Your task to perform on an android device: turn notification dots on Image 0: 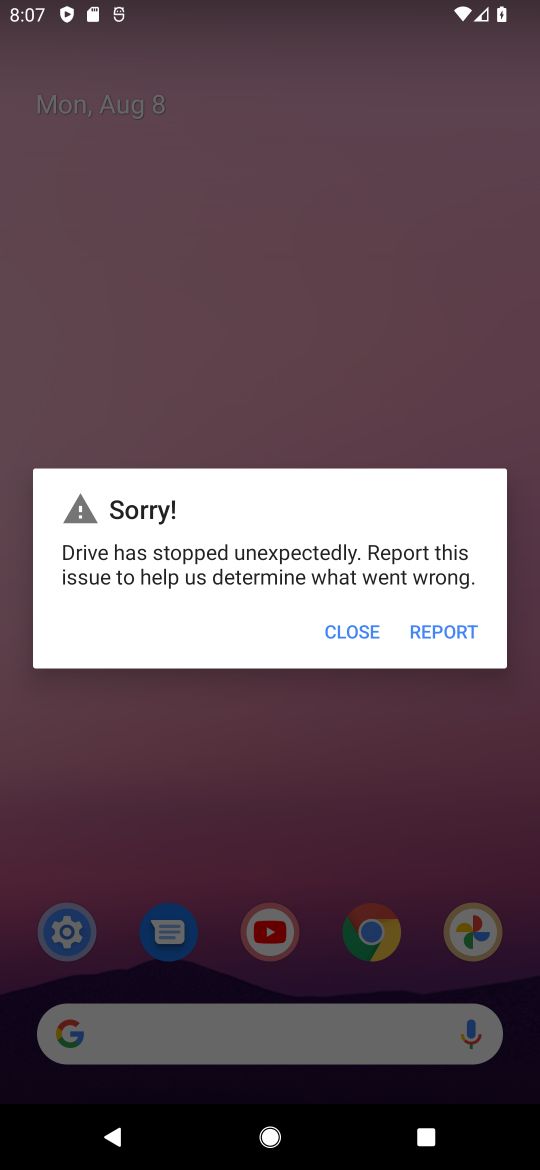
Step 0: drag from (321, 580) to (368, 624)
Your task to perform on an android device: turn notification dots on Image 1: 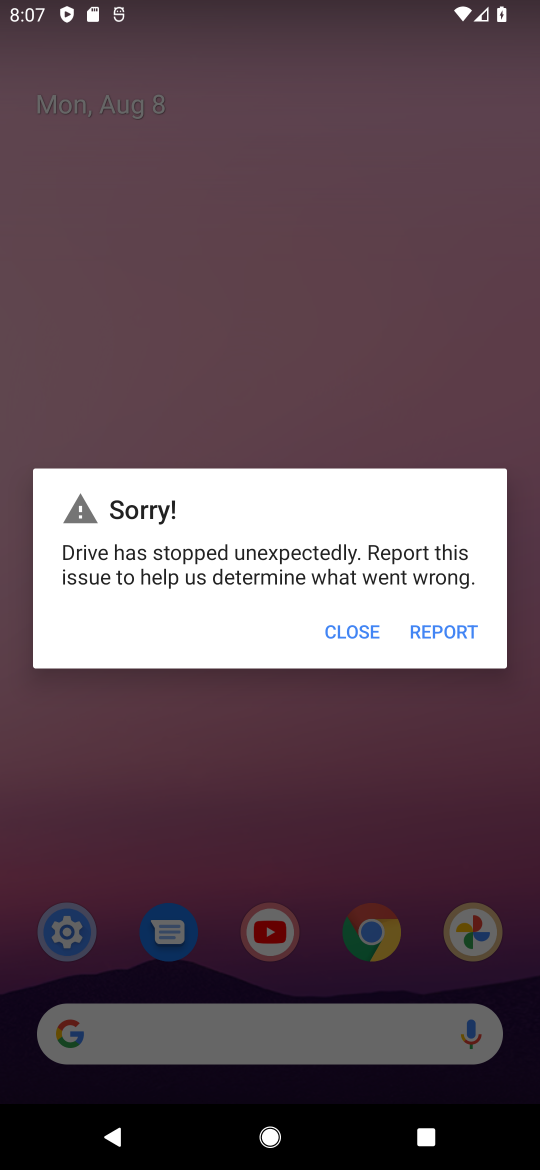
Step 1: click (353, 629)
Your task to perform on an android device: turn notification dots on Image 2: 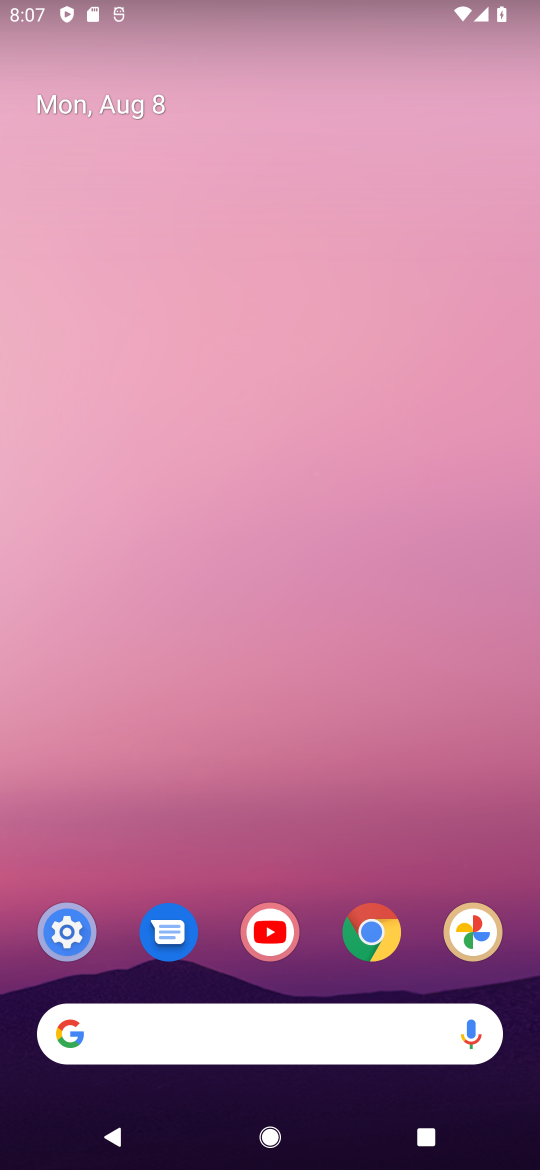
Step 2: drag from (315, 823) to (348, 144)
Your task to perform on an android device: turn notification dots on Image 3: 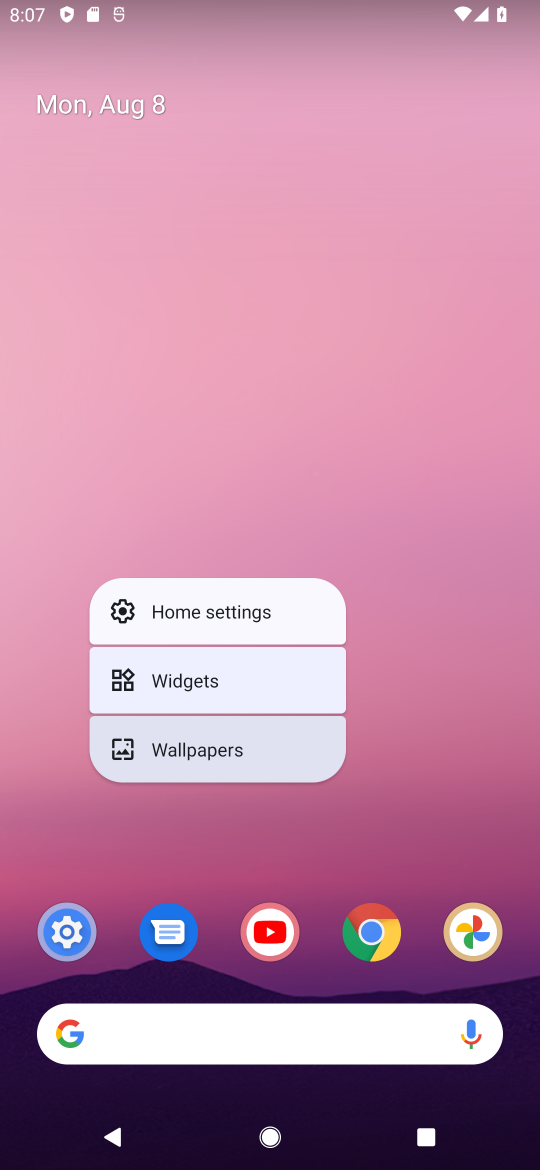
Step 3: click (421, 773)
Your task to perform on an android device: turn notification dots on Image 4: 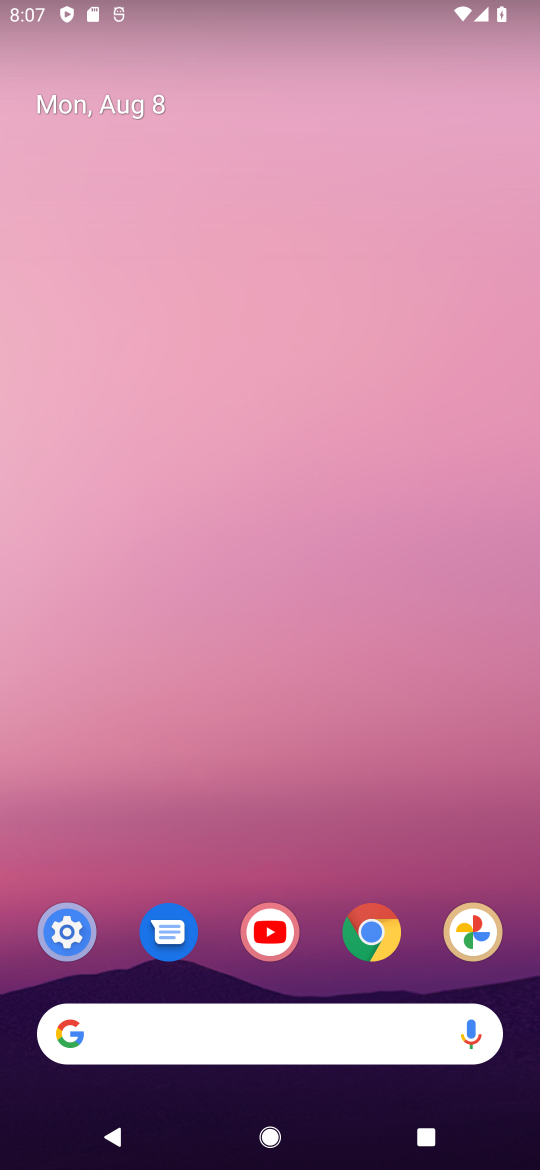
Step 4: drag from (235, 572) to (323, 12)
Your task to perform on an android device: turn notification dots on Image 5: 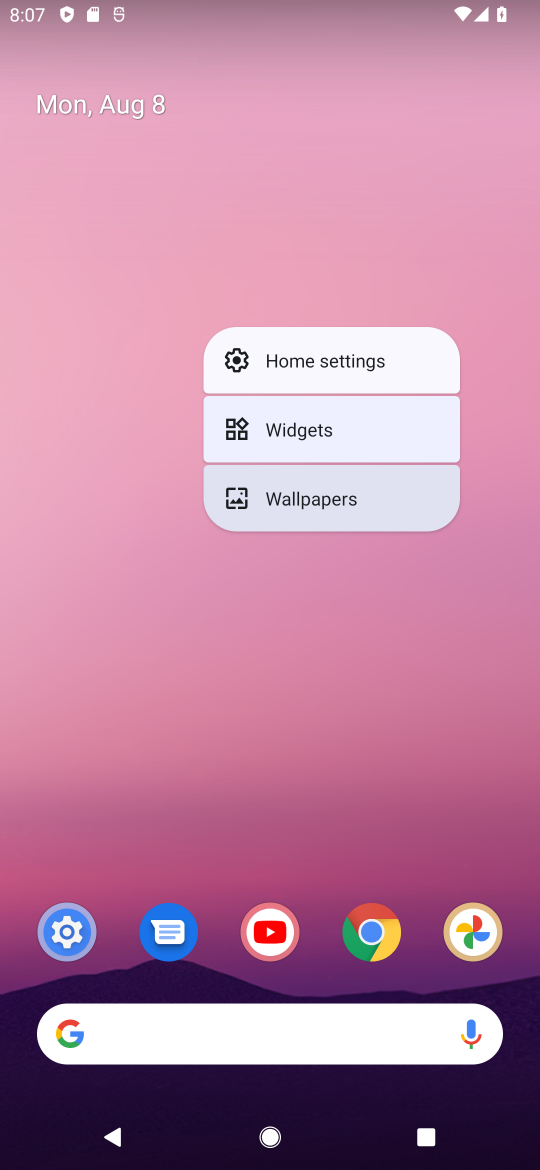
Step 5: click (109, 716)
Your task to perform on an android device: turn notification dots on Image 6: 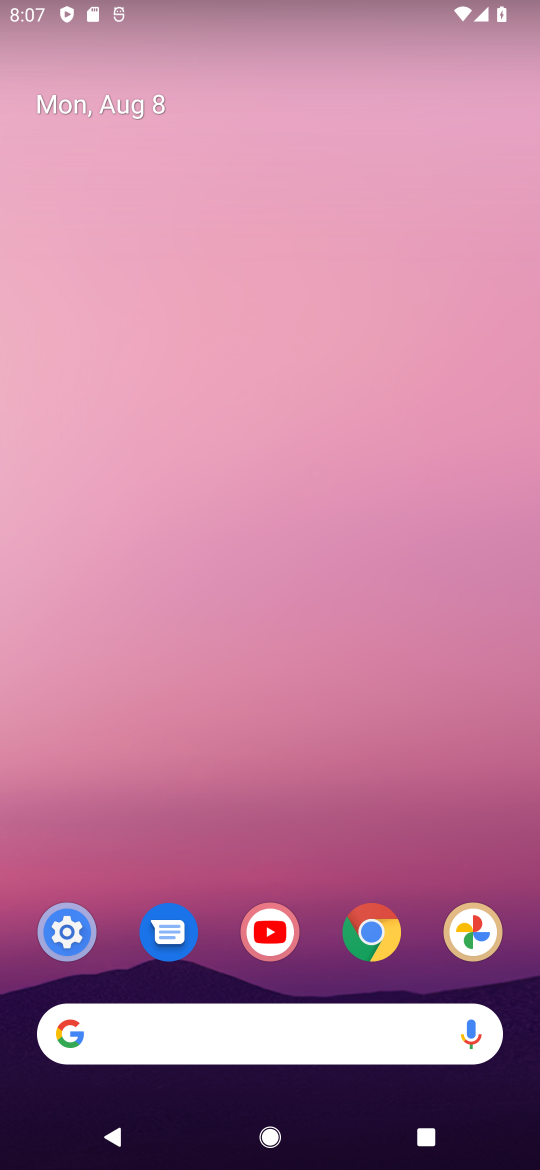
Step 6: drag from (284, 700) to (418, 33)
Your task to perform on an android device: turn notification dots on Image 7: 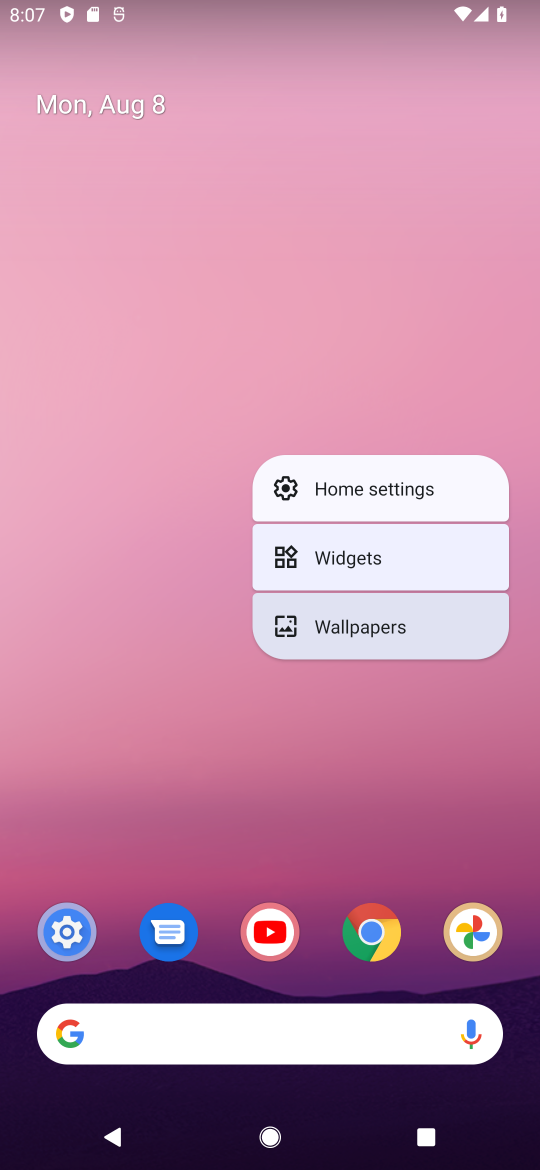
Step 7: click (119, 865)
Your task to perform on an android device: turn notification dots on Image 8: 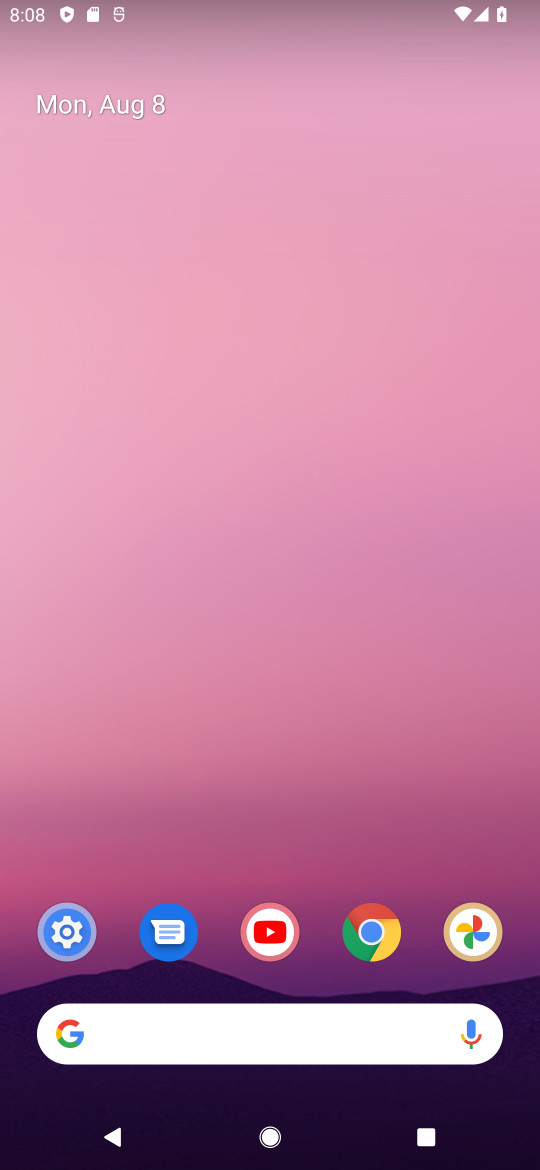
Step 8: drag from (273, 435) to (366, 3)
Your task to perform on an android device: turn notification dots on Image 9: 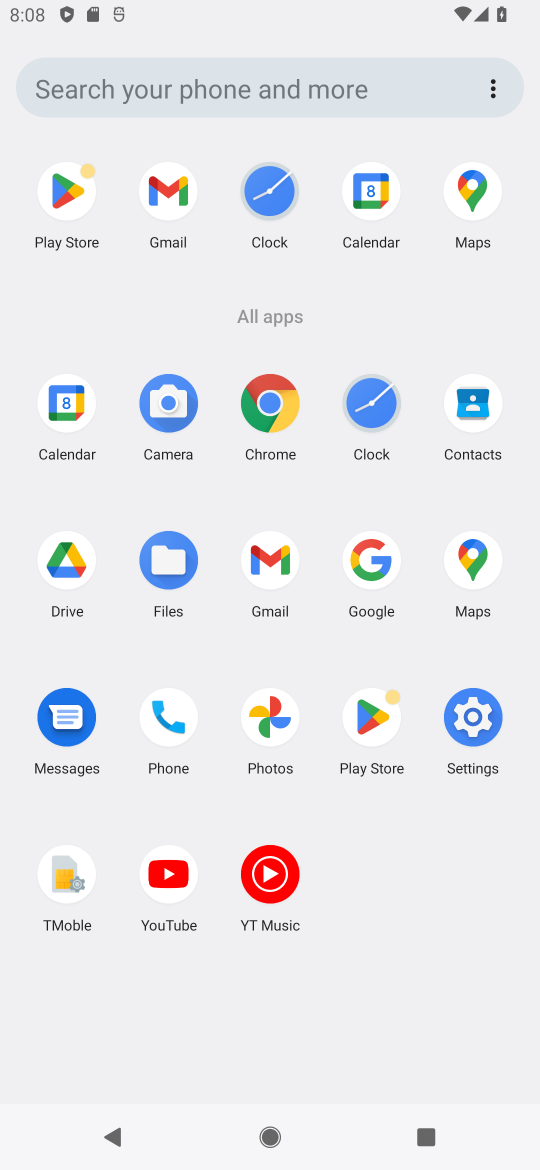
Step 9: click (462, 710)
Your task to perform on an android device: turn notification dots on Image 10: 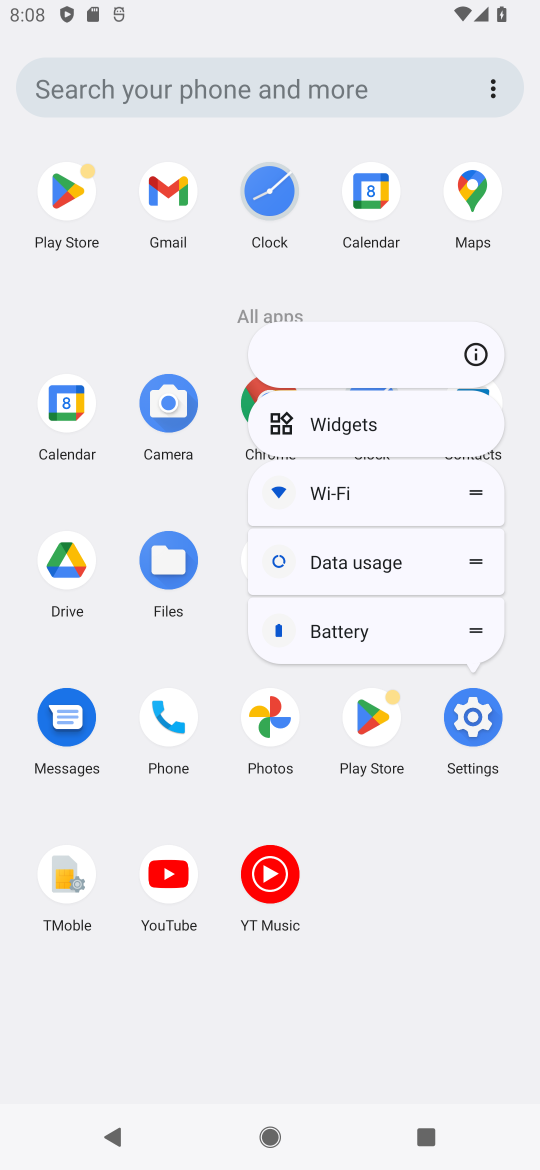
Step 10: click (493, 708)
Your task to perform on an android device: turn notification dots on Image 11: 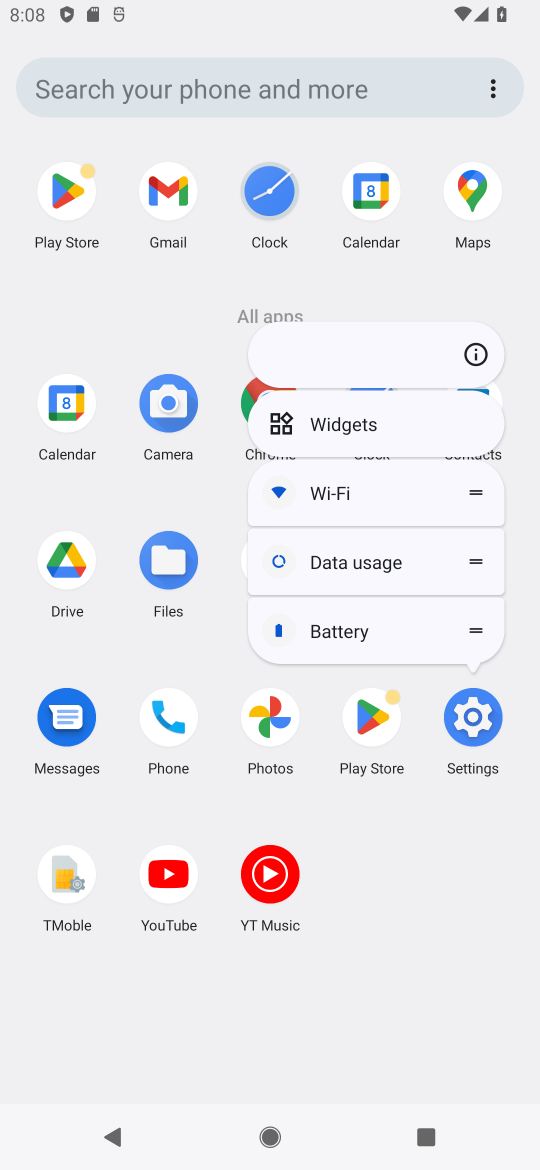
Step 11: click (483, 711)
Your task to perform on an android device: turn notification dots on Image 12: 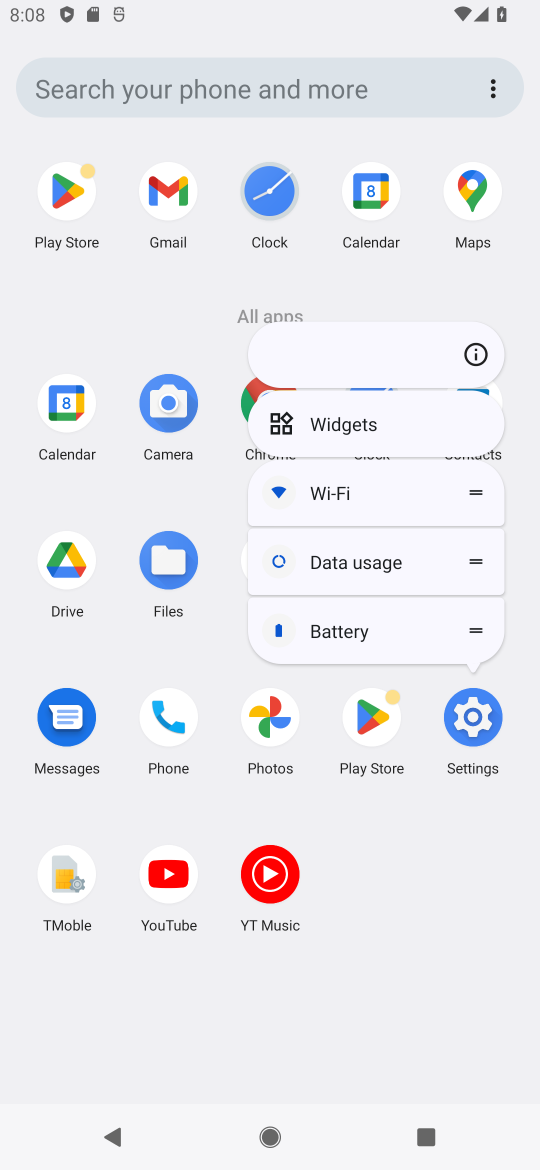
Step 12: click (481, 707)
Your task to perform on an android device: turn notification dots on Image 13: 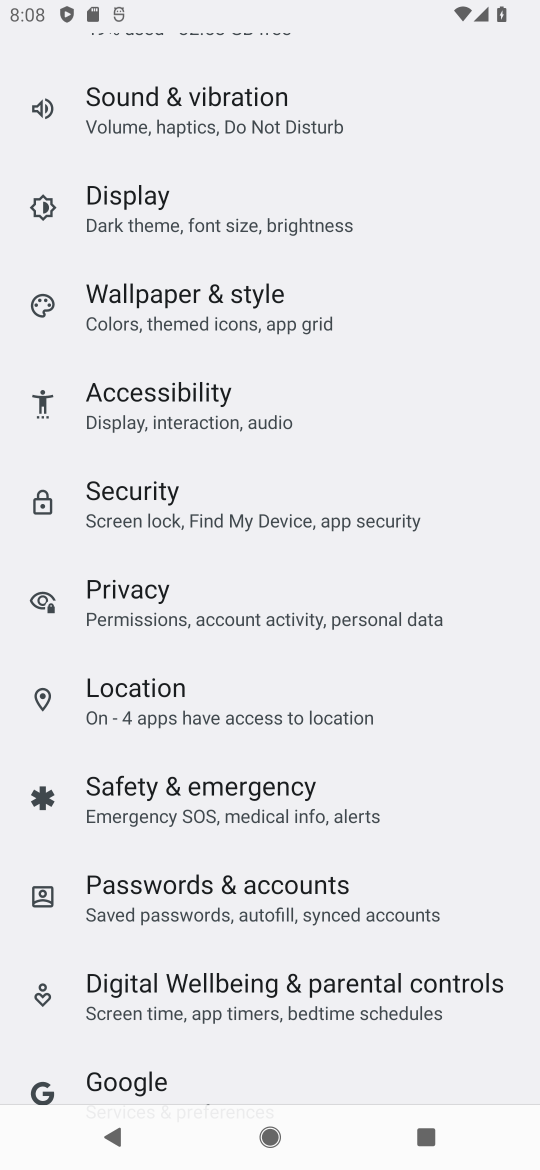
Step 13: drag from (220, 313) to (224, 1125)
Your task to perform on an android device: turn notification dots on Image 14: 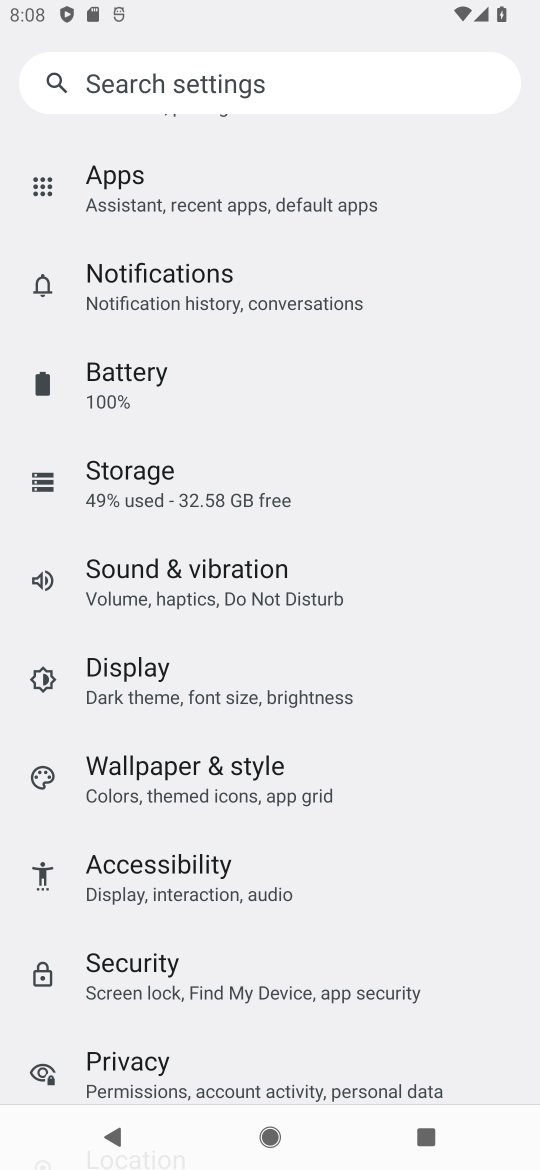
Step 14: click (233, 296)
Your task to perform on an android device: turn notification dots on Image 15: 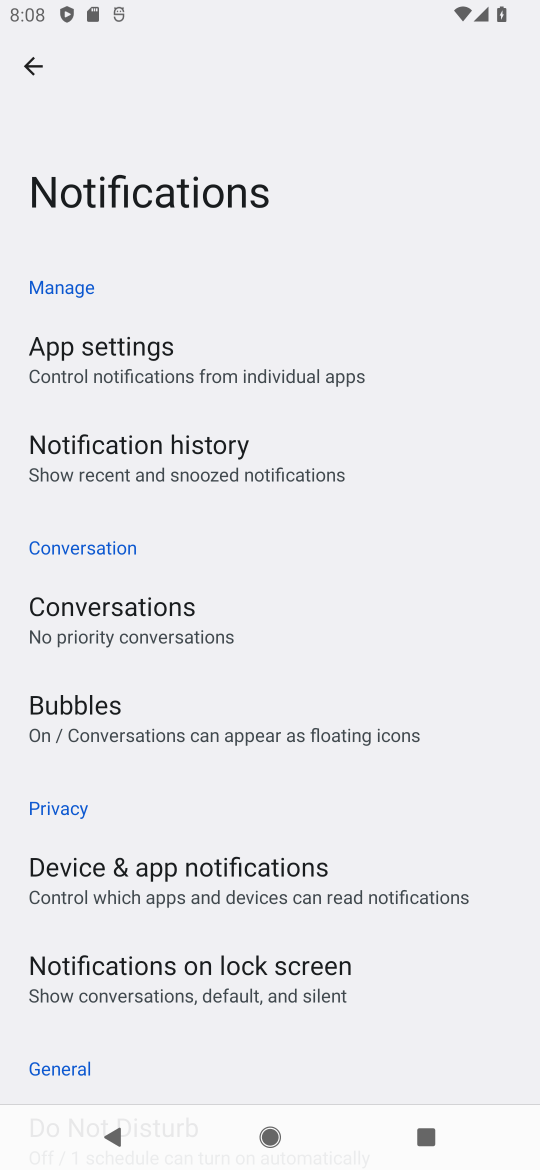
Step 15: task complete